Your task to perform on an android device: find photos in the google photos app Image 0: 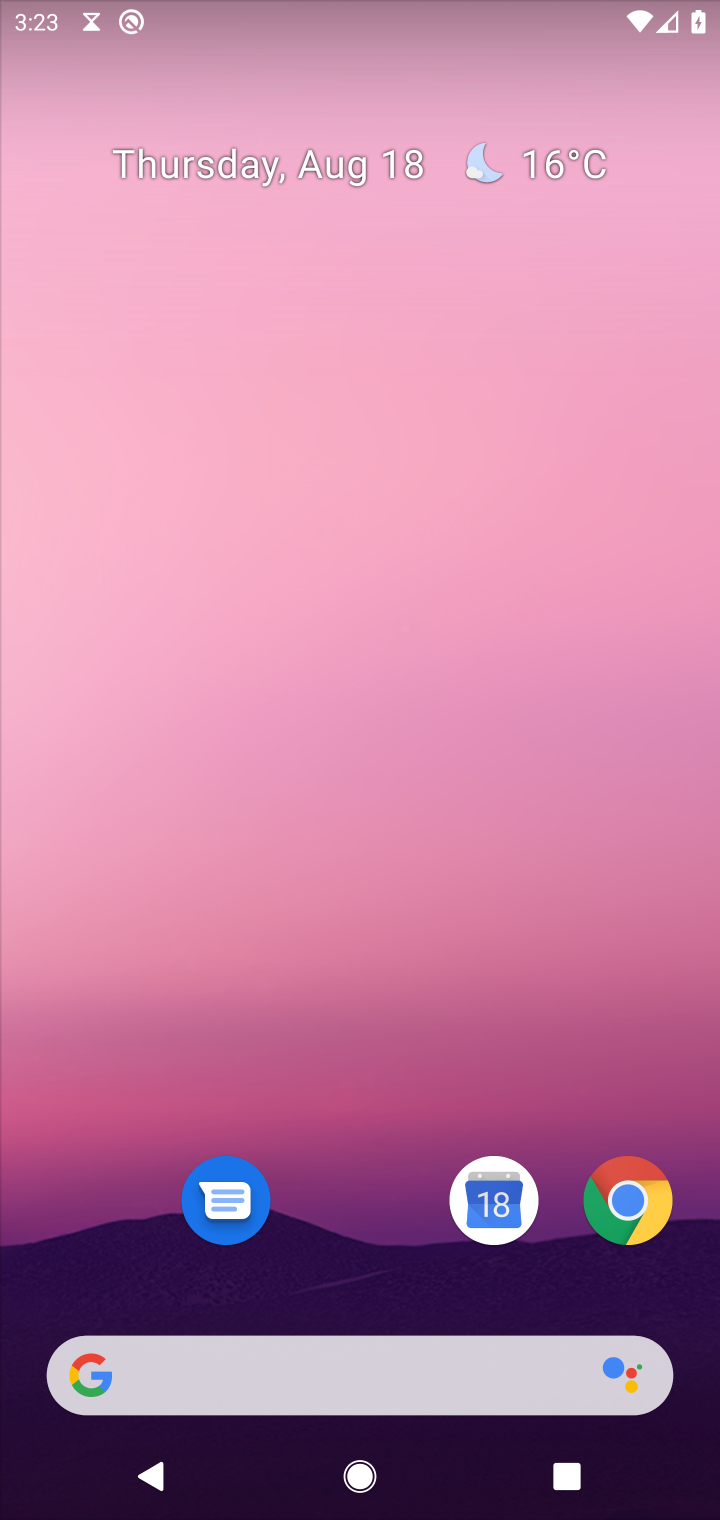
Step 0: press home button
Your task to perform on an android device: find photos in the google photos app Image 1: 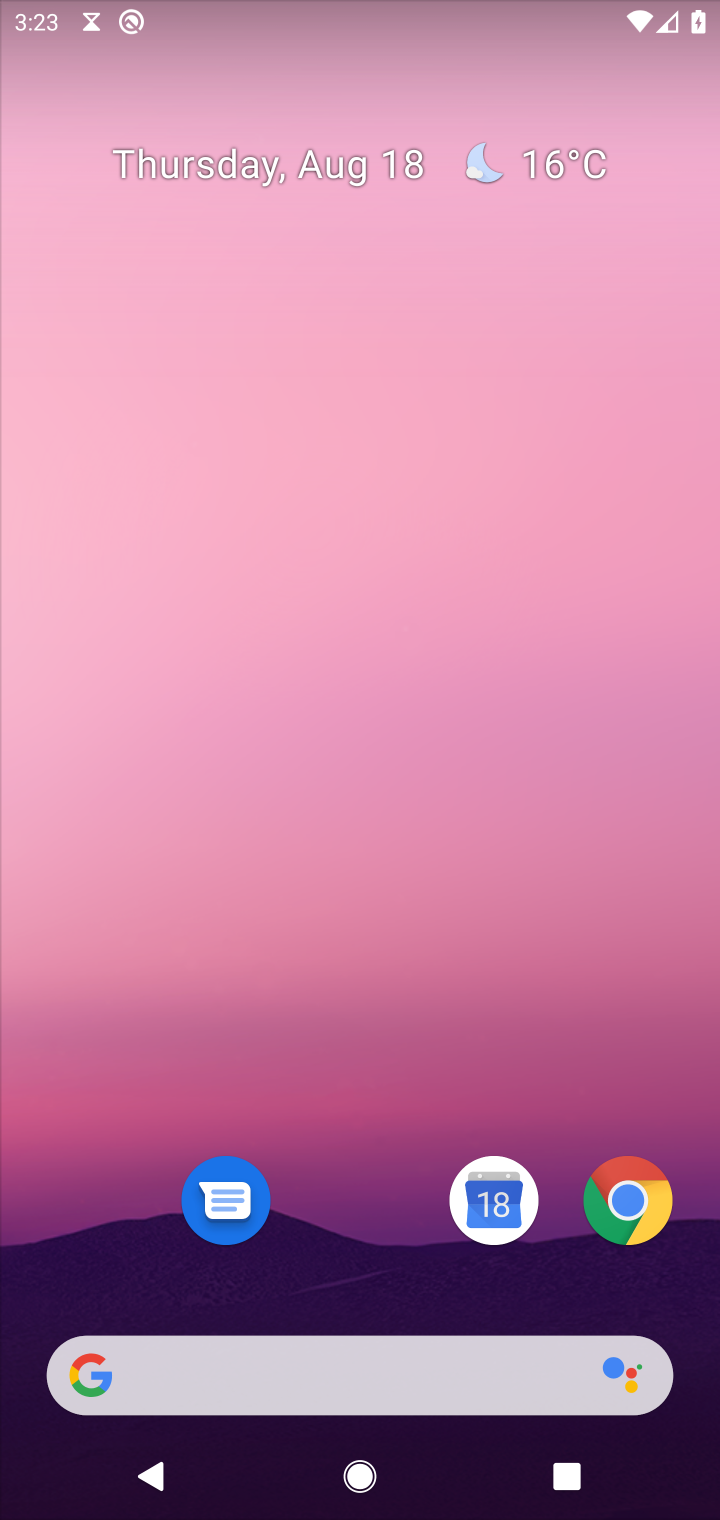
Step 1: drag from (296, 1150) to (301, 165)
Your task to perform on an android device: find photos in the google photos app Image 2: 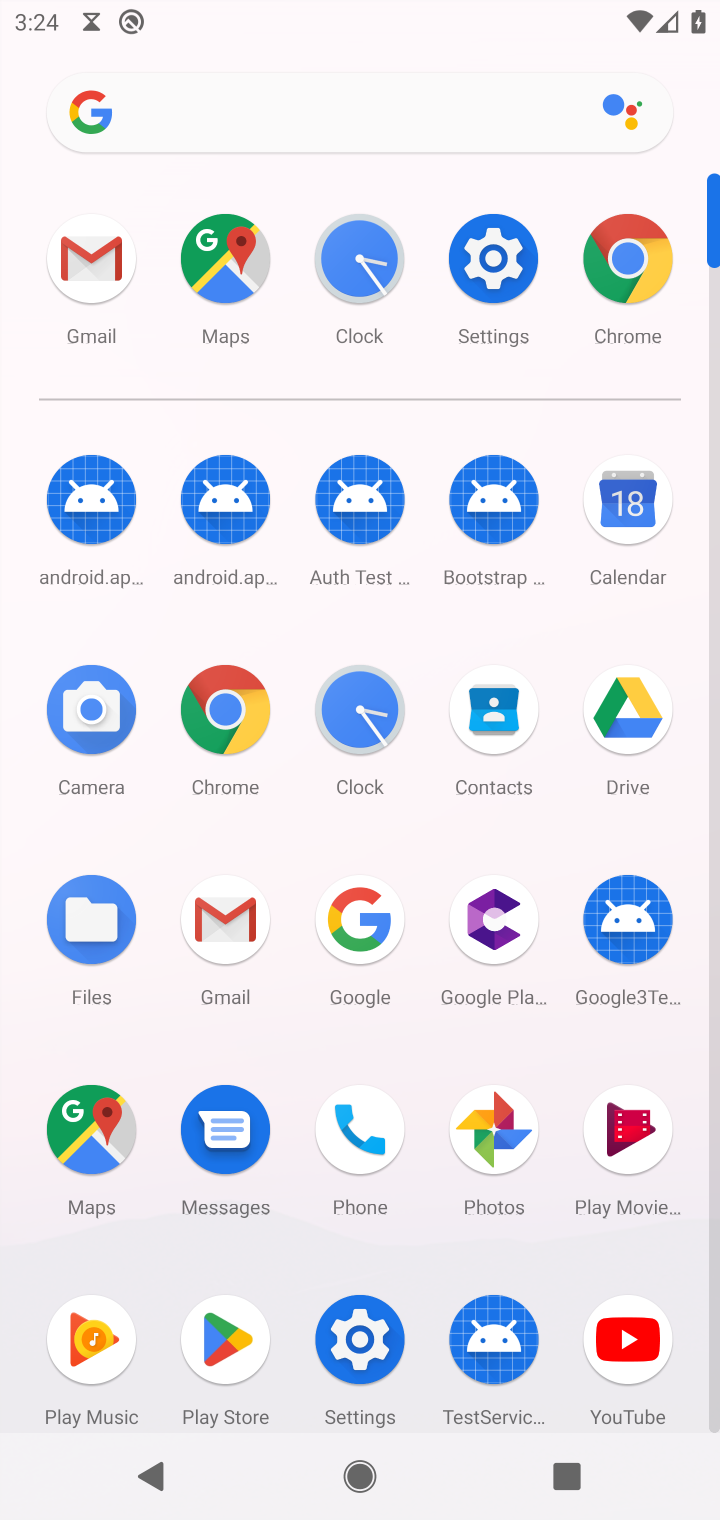
Step 2: click (231, 731)
Your task to perform on an android device: find photos in the google photos app Image 3: 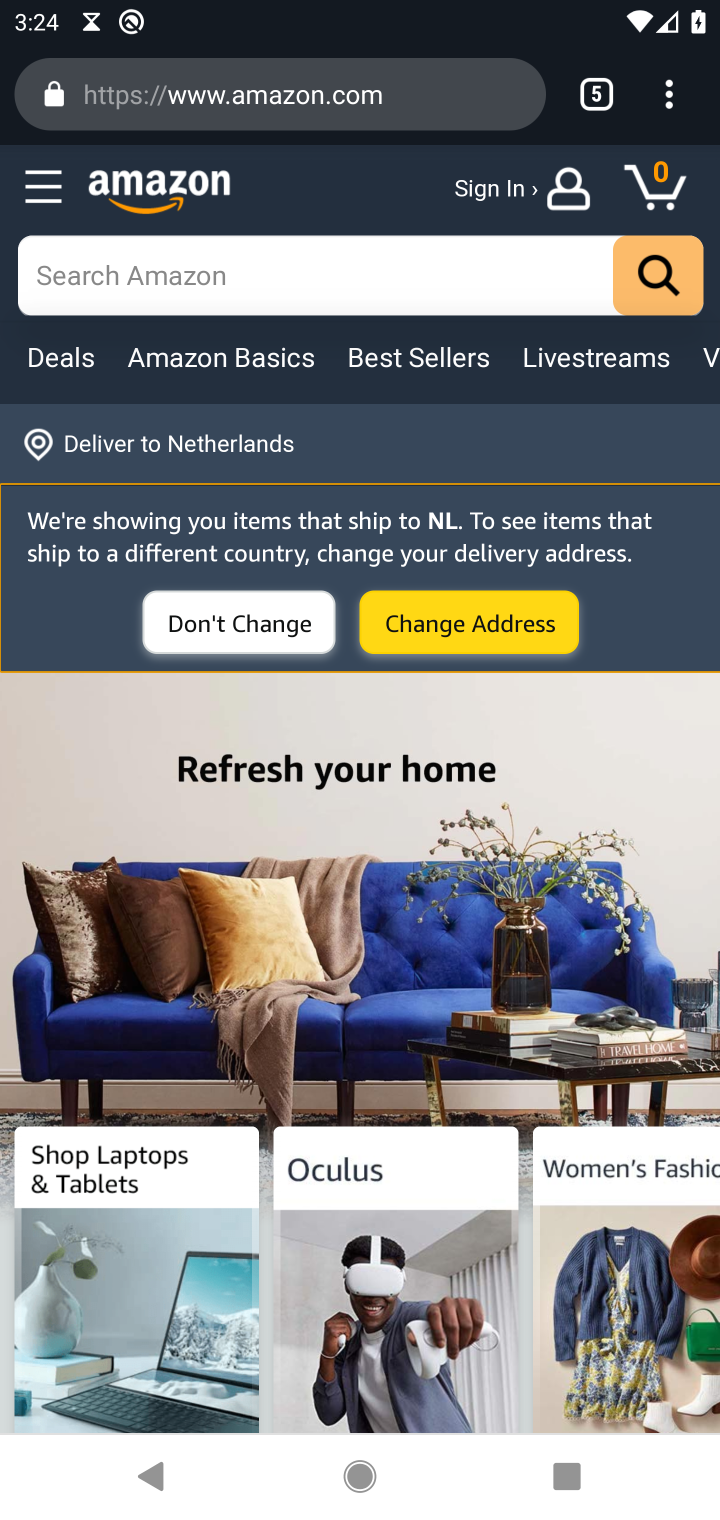
Step 3: press home button
Your task to perform on an android device: find photos in the google photos app Image 4: 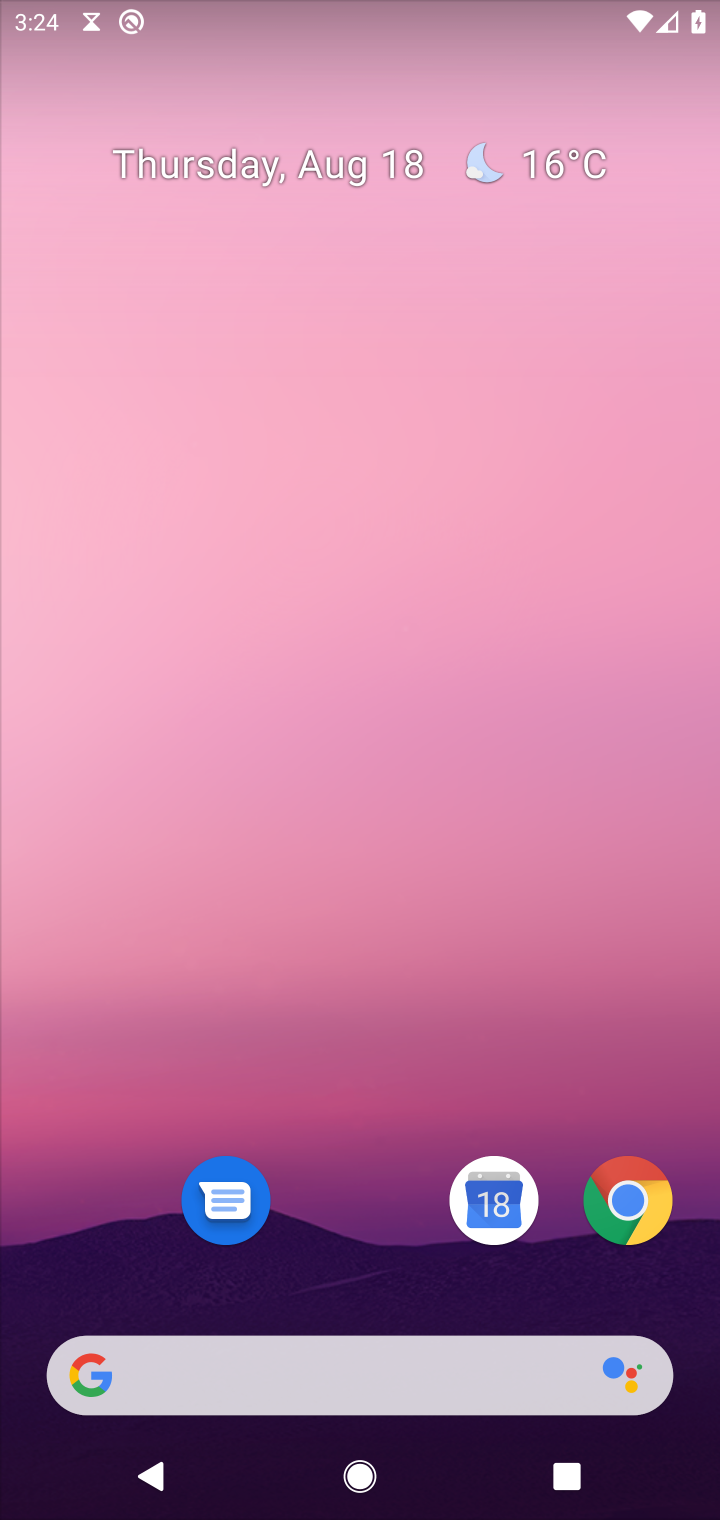
Step 4: drag from (352, 1195) to (310, 40)
Your task to perform on an android device: find photos in the google photos app Image 5: 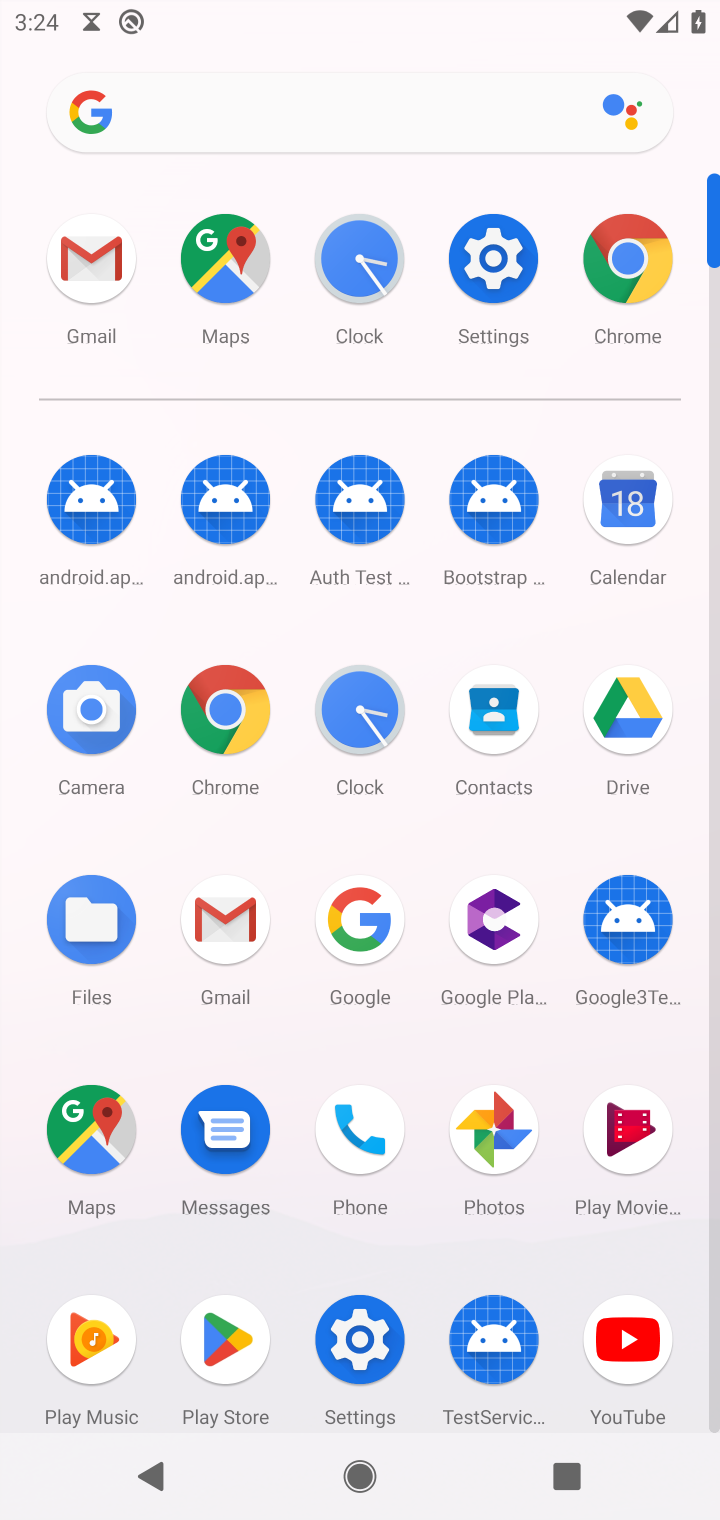
Step 5: click (509, 1148)
Your task to perform on an android device: find photos in the google photos app Image 6: 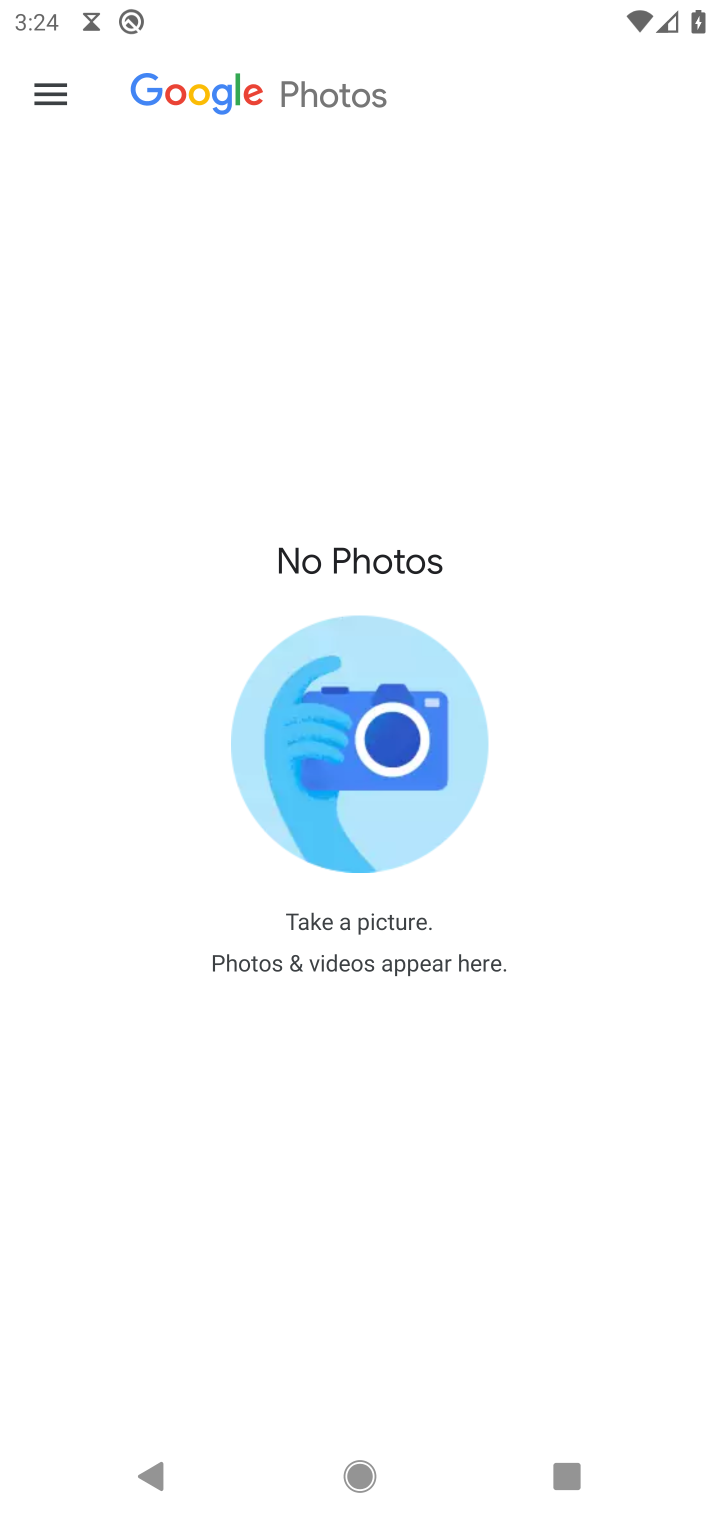
Step 6: task complete